Your task to perform on an android device: Open Google Image 0: 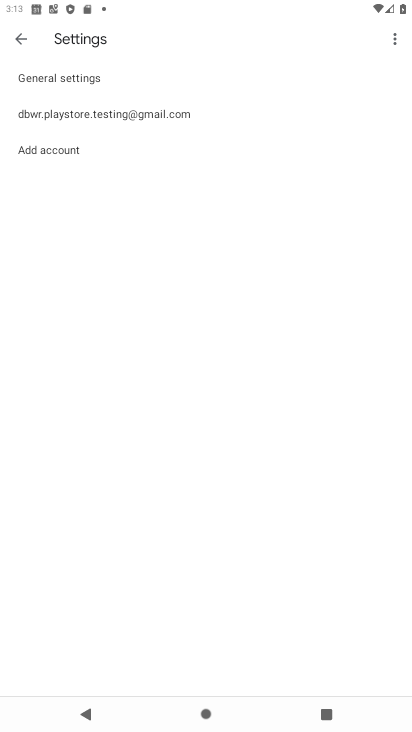
Step 0: press home button
Your task to perform on an android device: Open Google Image 1: 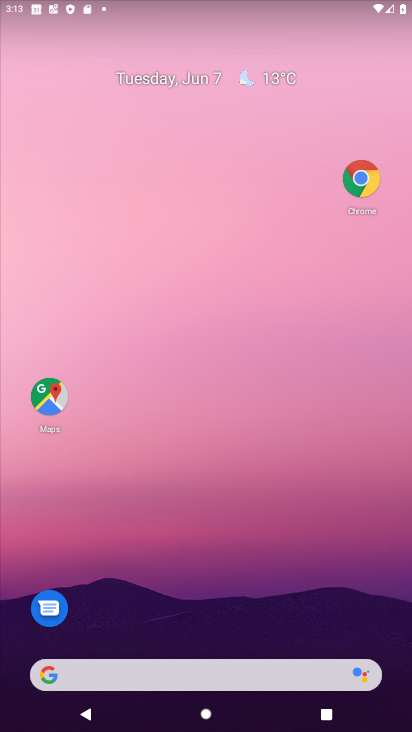
Step 1: drag from (145, 664) to (259, 154)
Your task to perform on an android device: Open Google Image 2: 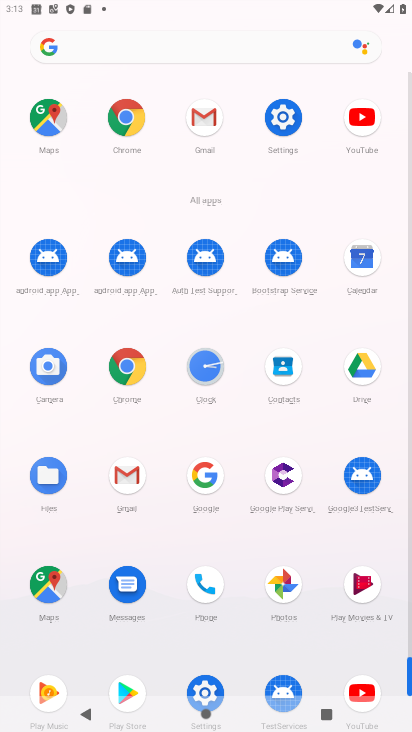
Step 2: click (202, 486)
Your task to perform on an android device: Open Google Image 3: 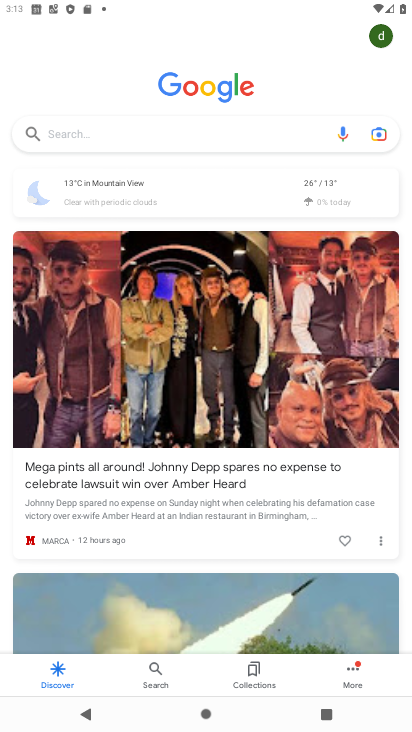
Step 3: task complete